Your task to perform on an android device: change alarm snooze length Image 0: 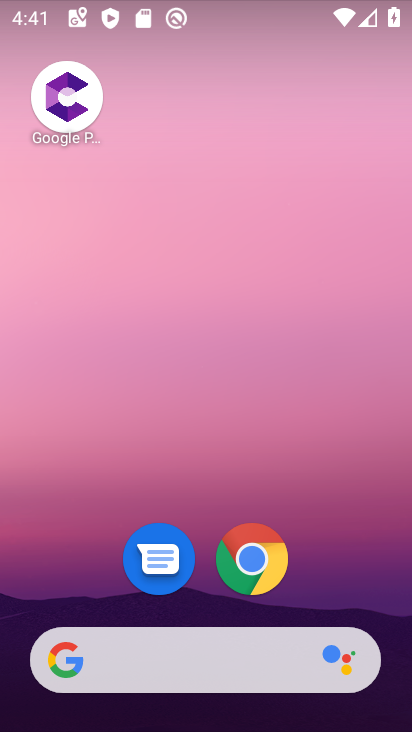
Step 0: drag from (330, 577) to (237, 222)
Your task to perform on an android device: change alarm snooze length Image 1: 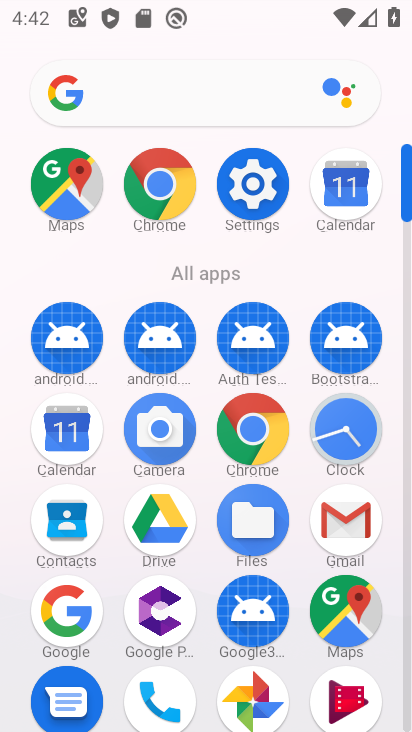
Step 1: drag from (179, 622) to (222, 277)
Your task to perform on an android device: change alarm snooze length Image 2: 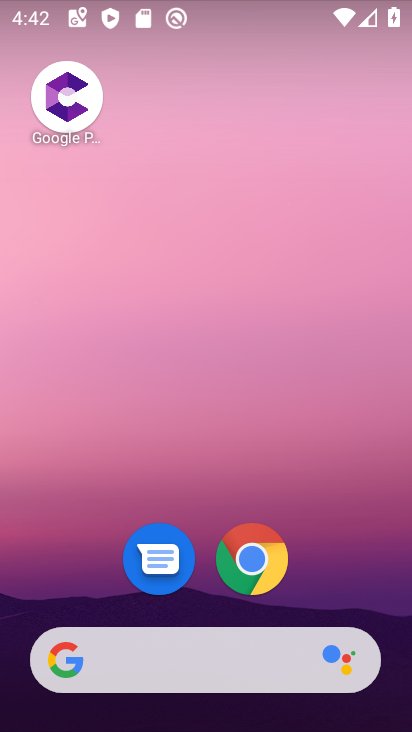
Step 2: click (249, 582)
Your task to perform on an android device: change alarm snooze length Image 3: 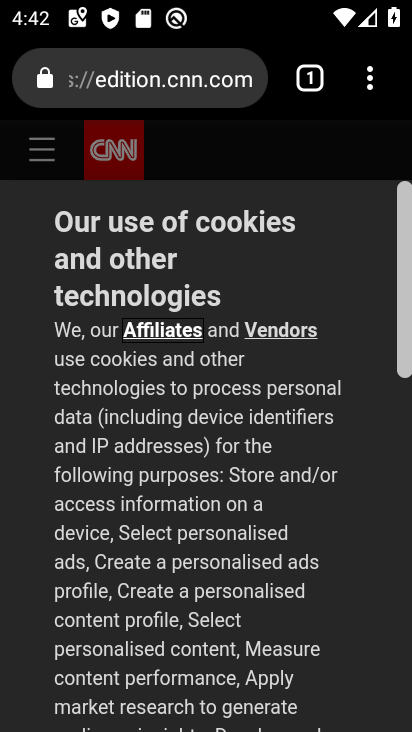
Step 3: press home button
Your task to perform on an android device: change alarm snooze length Image 4: 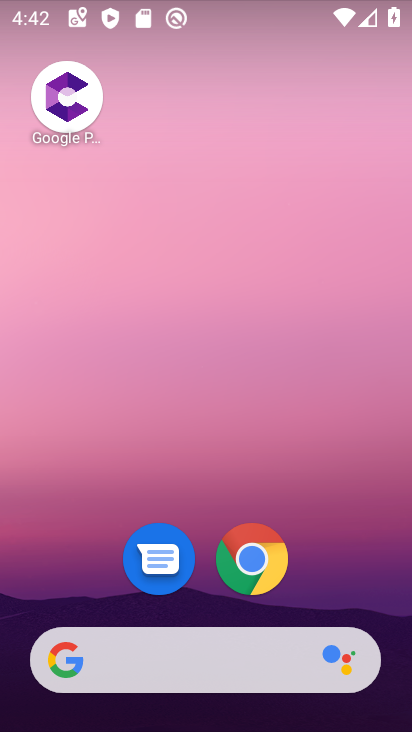
Step 4: drag from (300, 595) to (251, 173)
Your task to perform on an android device: change alarm snooze length Image 5: 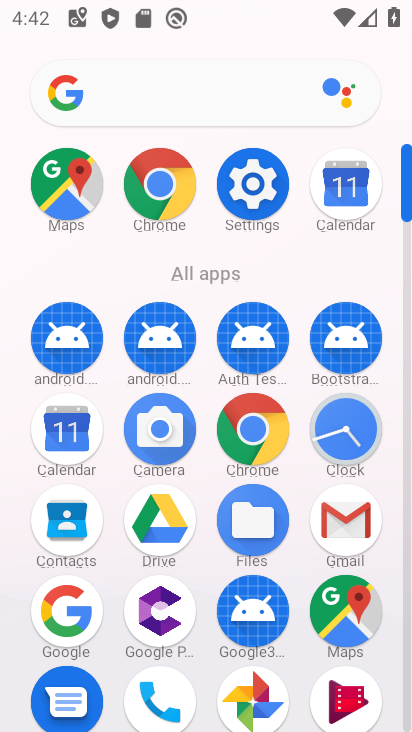
Step 5: click (324, 439)
Your task to perform on an android device: change alarm snooze length Image 6: 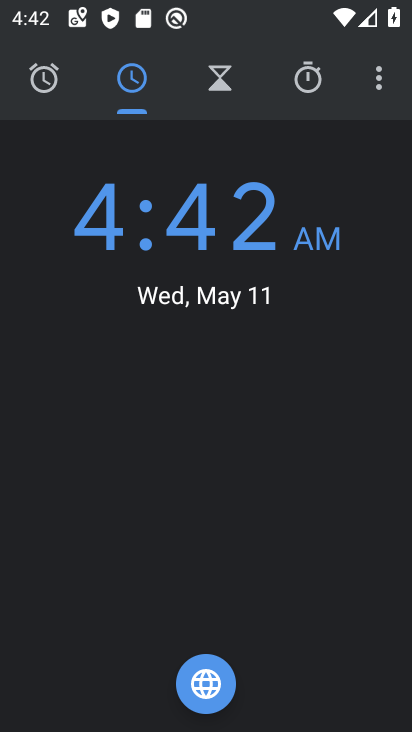
Step 6: click (383, 76)
Your task to perform on an android device: change alarm snooze length Image 7: 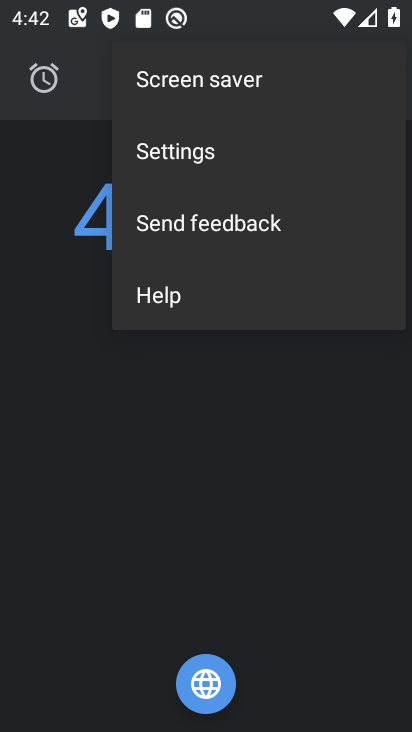
Step 7: click (184, 154)
Your task to perform on an android device: change alarm snooze length Image 8: 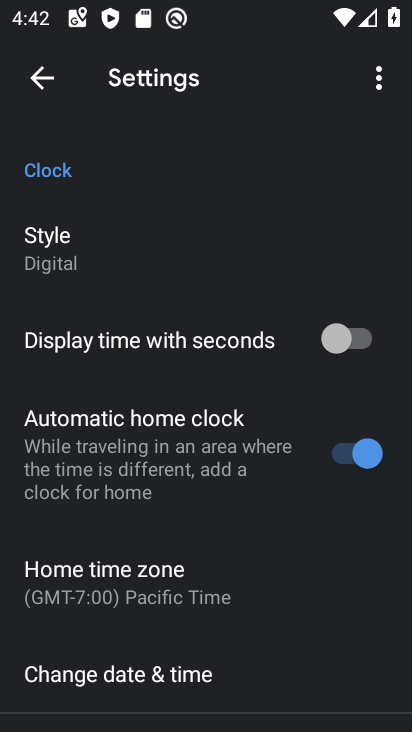
Step 8: drag from (209, 674) to (207, 341)
Your task to perform on an android device: change alarm snooze length Image 9: 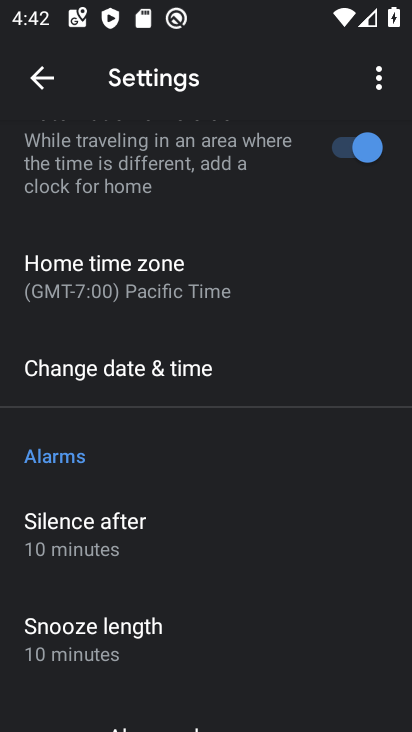
Step 9: drag from (197, 605) to (198, 350)
Your task to perform on an android device: change alarm snooze length Image 10: 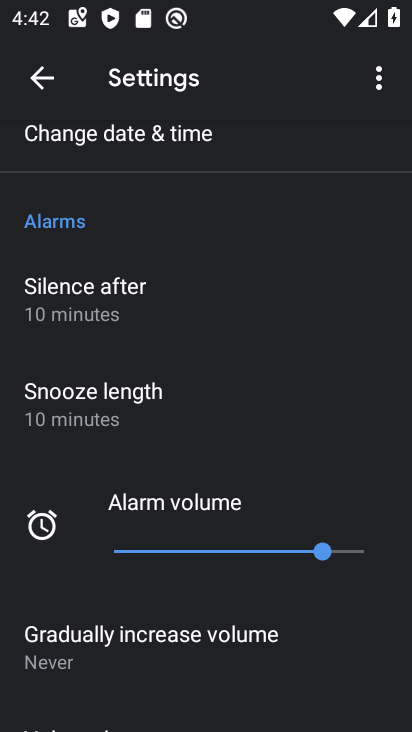
Step 10: click (147, 427)
Your task to perform on an android device: change alarm snooze length Image 11: 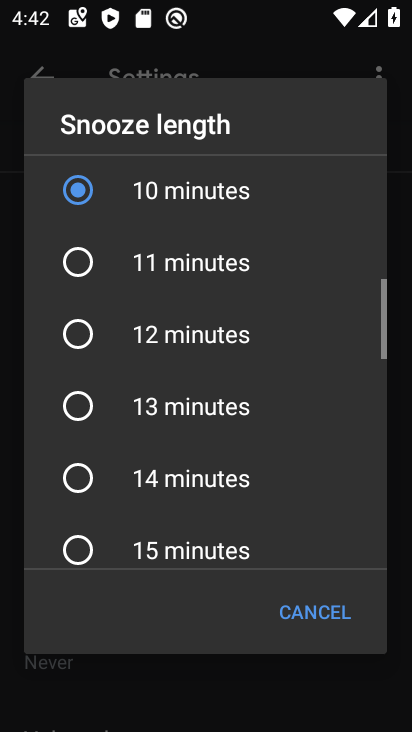
Step 11: click (82, 258)
Your task to perform on an android device: change alarm snooze length Image 12: 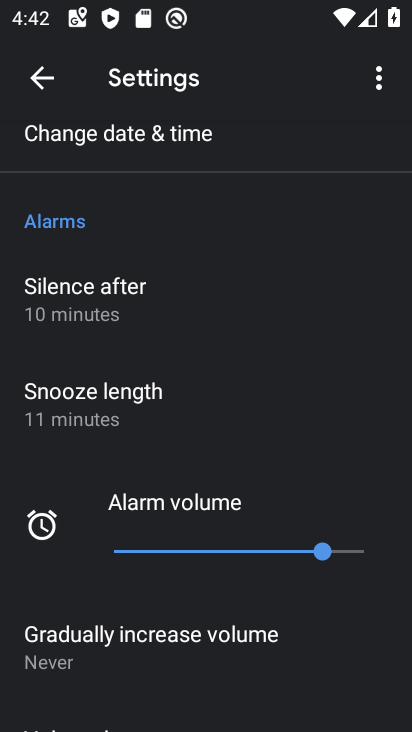
Step 12: task complete